Your task to perform on an android device: Add "razer blade" to the cart on amazon.com, then select checkout. Image 0: 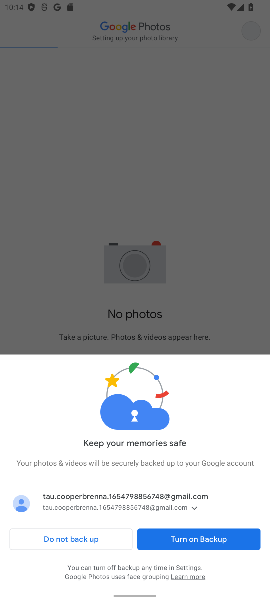
Step 0: press home button
Your task to perform on an android device: Add "razer blade" to the cart on amazon.com, then select checkout. Image 1: 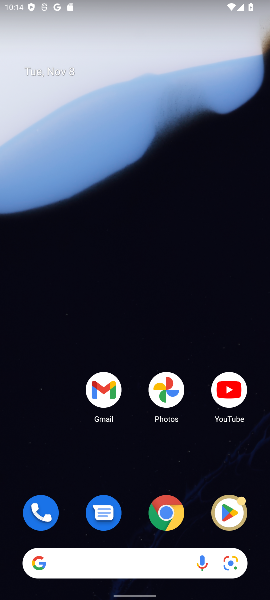
Step 1: click (176, 512)
Your task to perform on an android device: Add "razer blade" to the cart on amazon.com, then select checkout. Image 2: 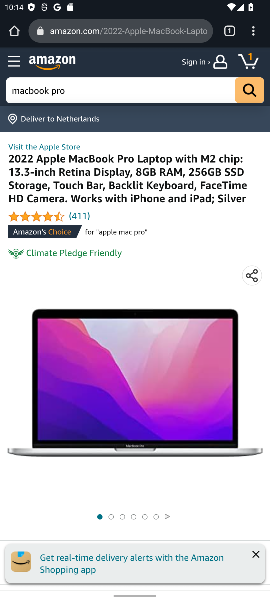
Step 2: click (103, 91)
Your task to perform on an android device: Add "razer blade" to the cart on amazon.com, then select checkout. Image 3: 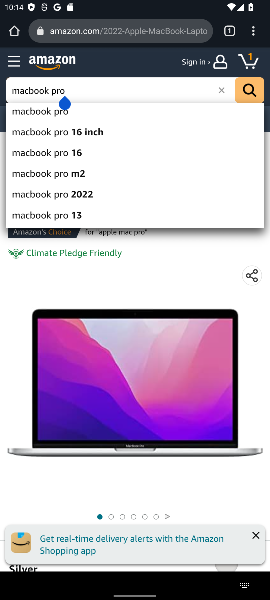
Step 3: click (222, 92)
Your task to perform on an android device: Add "razer blade" to the cart on amazon.com, then select checkout. Image 4: 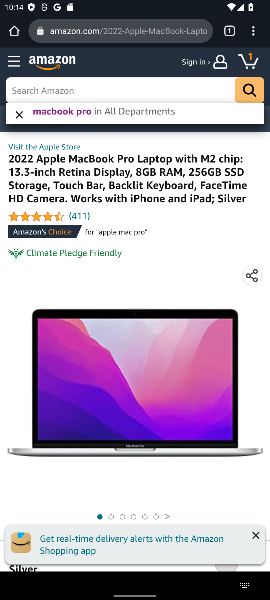
Step 4: press enter
Your task to perform on an android device: Add "razer blade" to the cart on amazon.com, then select checkout. Image 5: 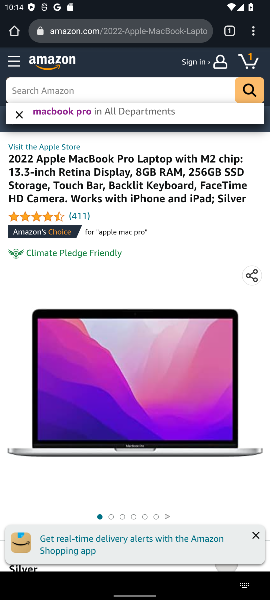
Step 5: type "razer blade"
Your task to perform on an android device: Add "razer blade" to the cart on amazon.com, then select checkout. Image 6: 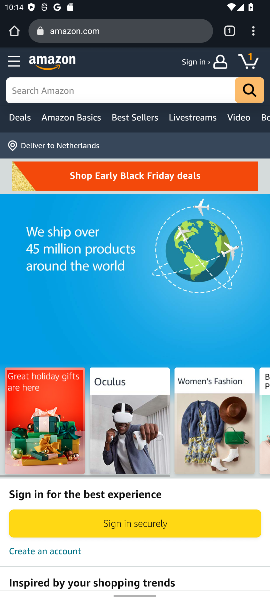
Step 6: click (75, 92)
Your task to perform on an android device: Add "razer blade" to the cart on amazon.com, then select checkout. Image 7: 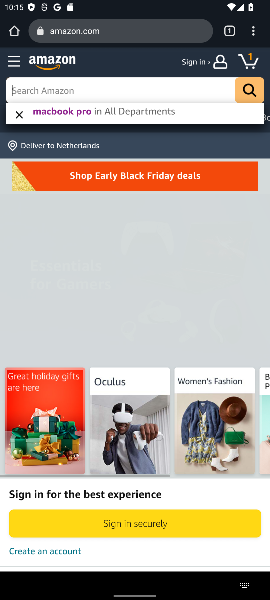
Step 7: type "razer blade"
Your task to perform on an android device: Add "razer blade" to the cart on amazon.com, then select checkout. Image 8: 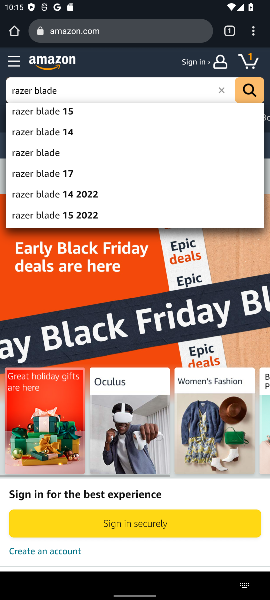
Step 8: click (25, 154)
Your task to perform on an android device: Add "razer blade" to the cart on amazon.com, then select checkout. Image 9: 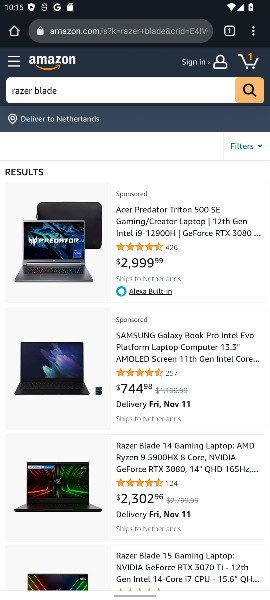
Step 9: click (124, 458)
Your task to perform on an android device: Add "razer blade" to the cart on amazon.com, then select checkout. Image 10: 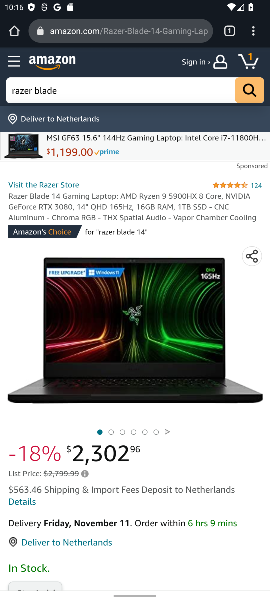
Step 10: drag from (186, 471) to (214, 198)
Your task to perform on an android device: Add "razer blade" to the cart on amazon.com, then select checkout. Image 11: 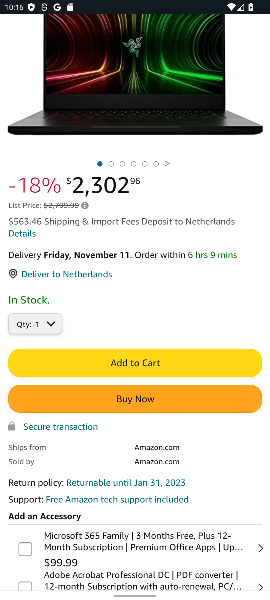
Step 11: click (73, 364)
Your task to perform on an android device: Add "razer blade" to the cart on amazon.com, then select checkout. Image 12: 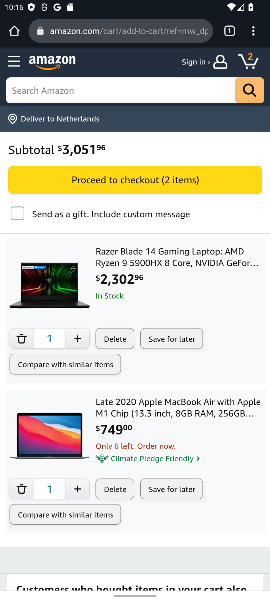
Step 12: click (158, 183)
Your task to perform on an android device: Add "razer blade" to the cart on amazon.com, then select checkout. Image 13: 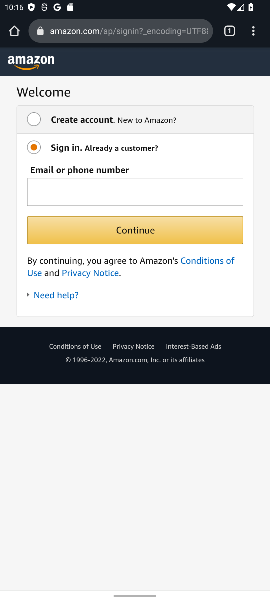
Step 13: task complete